Your task to perform on an android device: check out phone information Image 0: 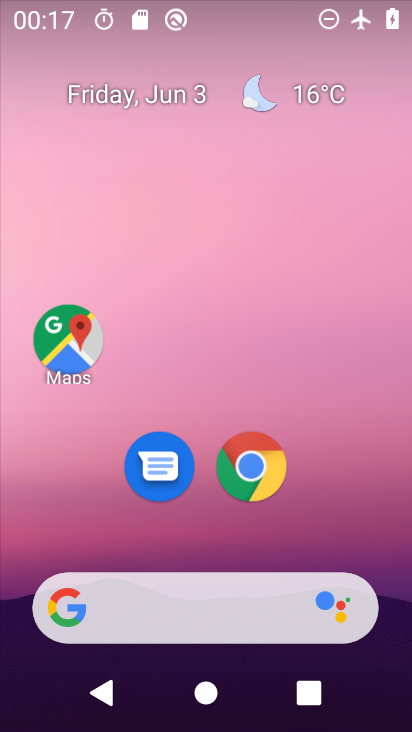
Step 0: drag from (209, 526) to (233, 175)
Your task to perform on an android device: check out phone information Image 1: 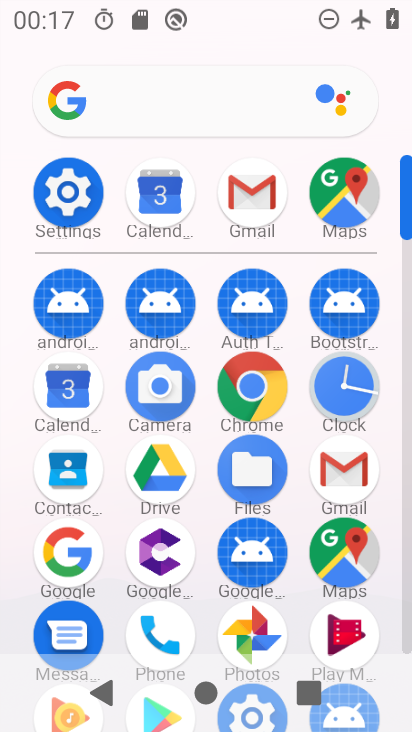
Step 1: click (63, 205)
Your task to perform on an android device: check out phone information Image 2: 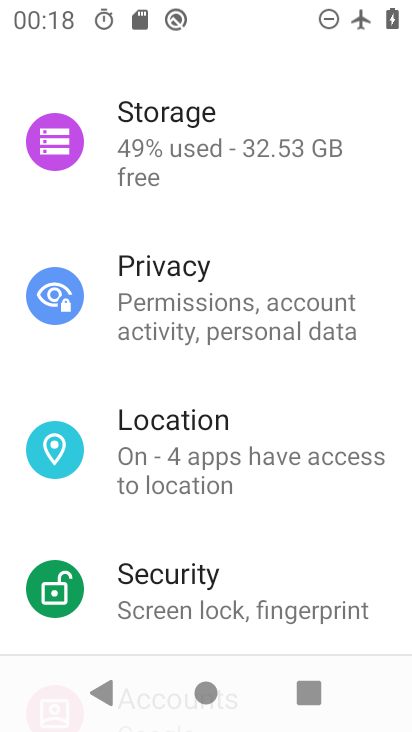
Step 2: drag from (258, 583) to (253, 205)
Your task to perform on an android device: check out phone information Image 3: 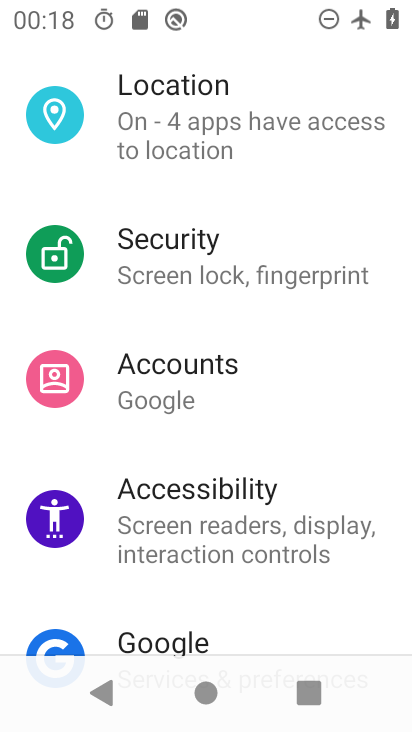
Step 3: drag from (271, 558) to (234, 196)
Your task to perform on an android device: check out phone information Image 4: 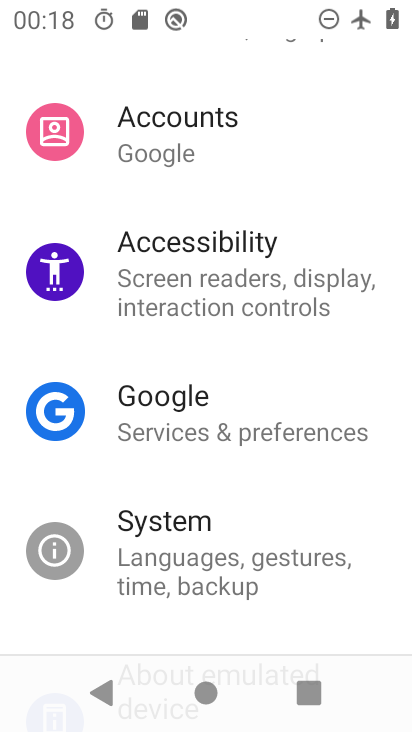
Step 4: drag from (237, 557) to (238, 193)
Your task to perform on an android device: check out phone information Image 5: 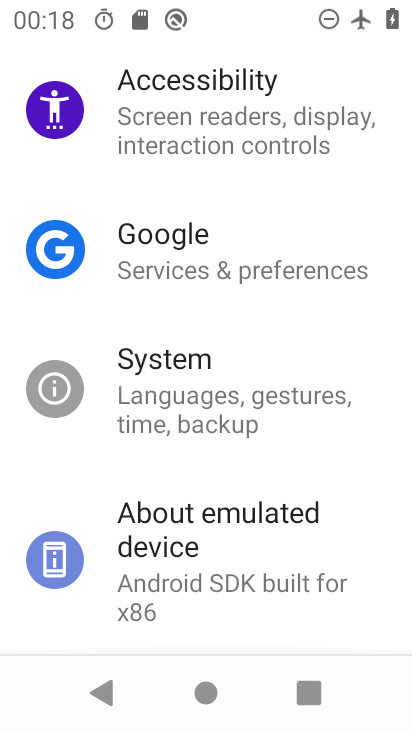
Step 5: drag from (267, 570) to (283, 230)
Your task to perform on an android device: check out phone information Image 6: 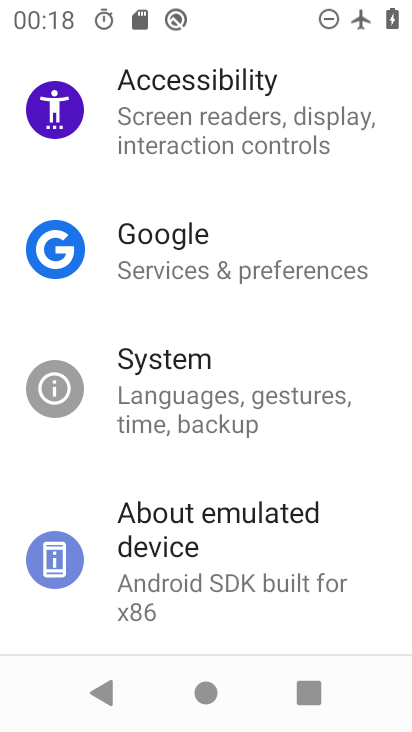
Step 6: drag from (291, 543) to (295, 161)
Your task to perform on an android device: check out phone information Image 7: 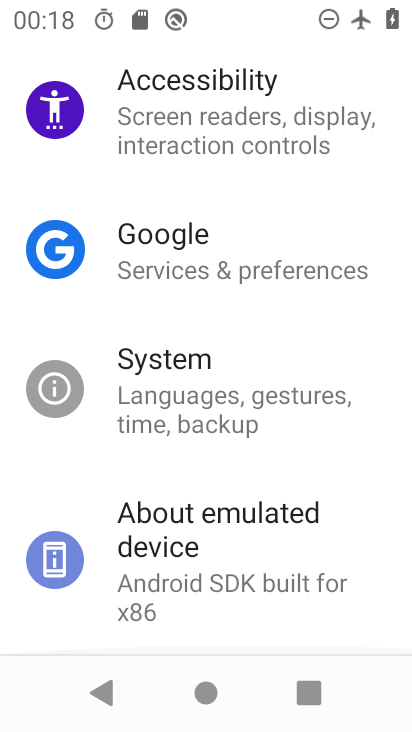
Step 7: drag from (308, 526) to (275, 165)
Your task to perform on an android device: check out phone information Image 8: 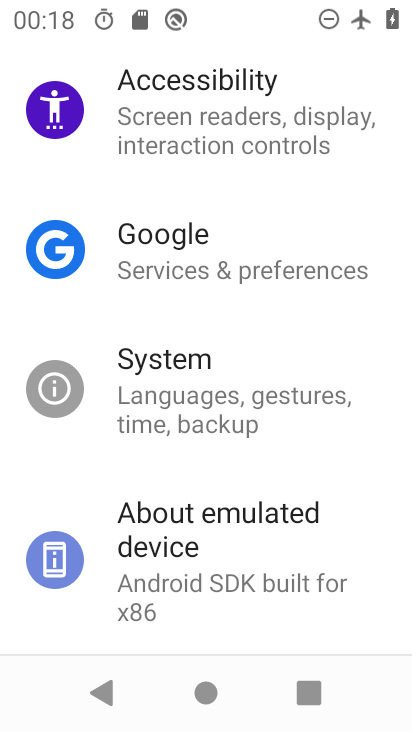
Step 8: drag from (274, 583) to (257, 350)
Your task to perform on an android device: check out phone information Image 9: 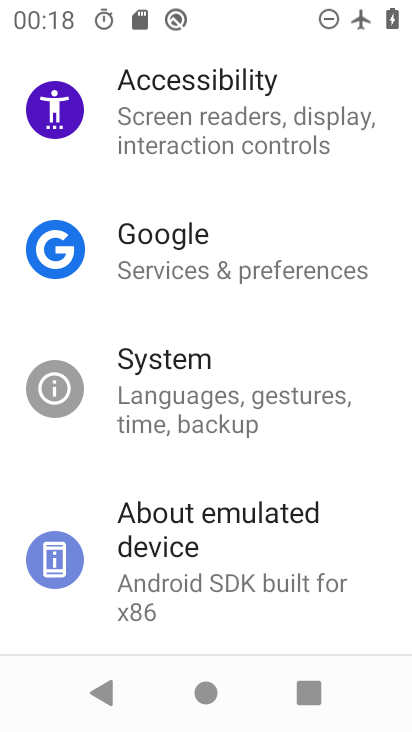
Step 9: click (224, 544)
Your task to perform on an android device: check out phone information Image 10: 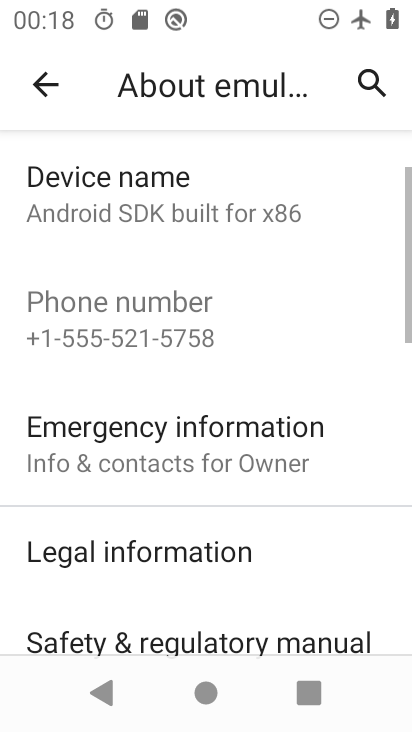
Step 10: task complete